Your task to perform on an android device: choose inbox layout in the gmail app Image 0: 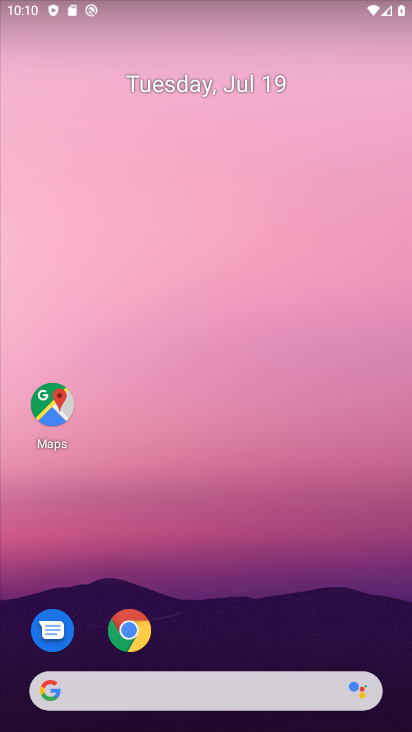
Step 0: press home button
Your task to perform on an android device: choose inbox layout in the gmail app Image 1: 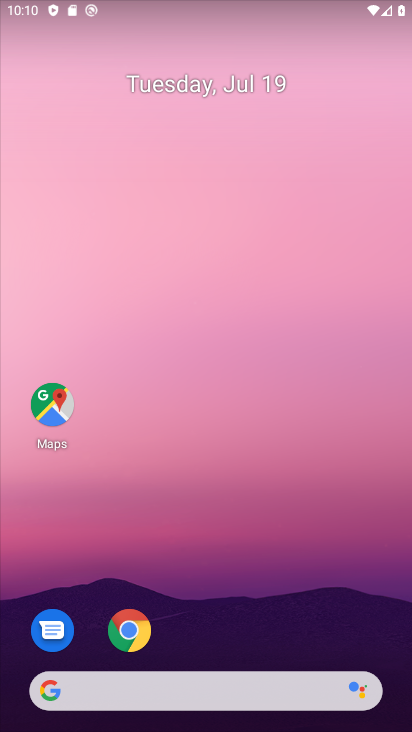
Step 1: drag from (275, 641) to (244, 215)
Your task to perform on an android device: choose inbox layout in the gmail app Image 2: 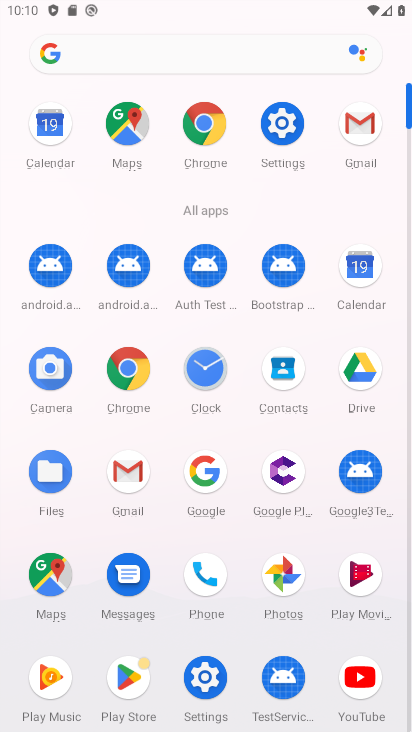
Step 2: click (348, 136)
Your task to perform on an android device: choose inbox layout in the gmail app Image 3: 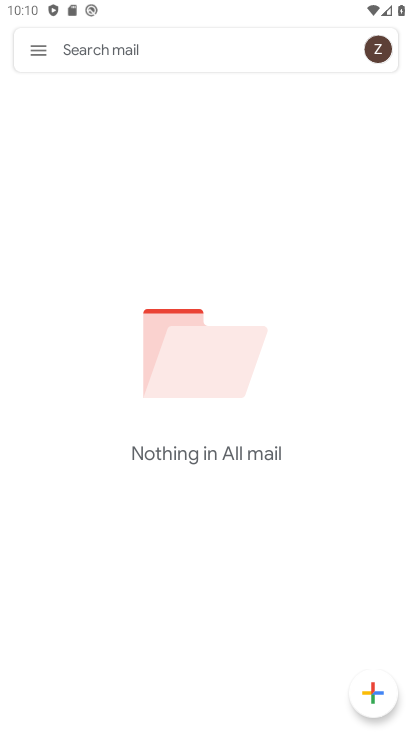
Step 3: click (37, 45)
Your task to perform on an android device: choose inbox layout in the gmail app Image 4: 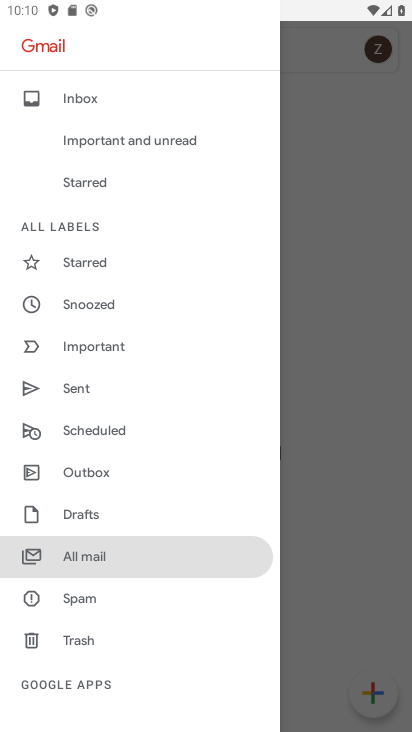
Step 4: drag from (217, 641) to (180, 226)
Your task to perform on an android device: choose inbox layout in the gmail app Image 5: 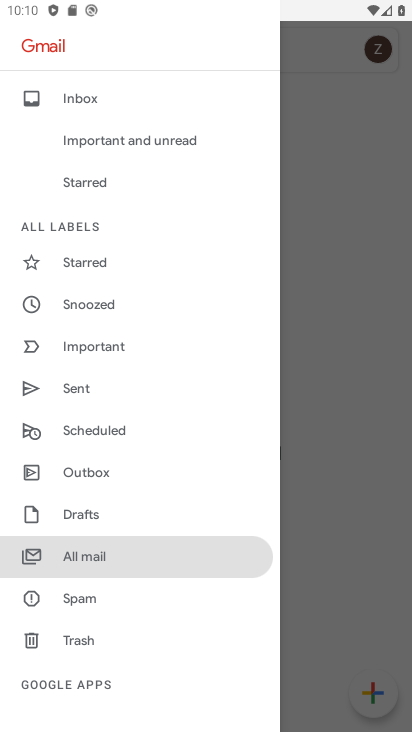
Step 5: drag from (221, 383) to (237, 54)
Your task to perform on an android device: choose inbox layout in the gmail app Image 6: 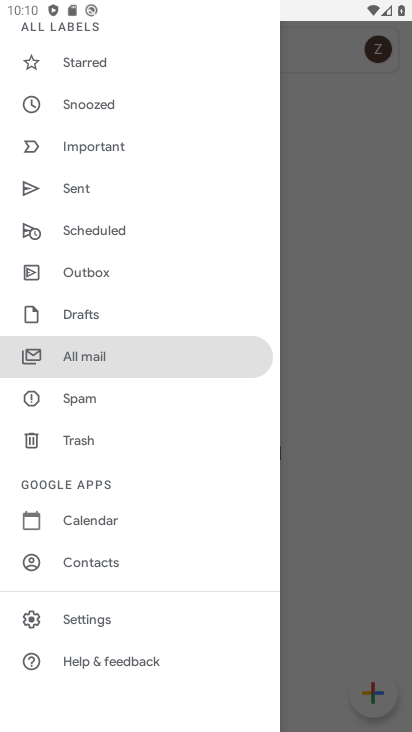
Step 6: click (79, 624)
Your task to perform on an android device: choose inbox layout in the gmail app Image 7: 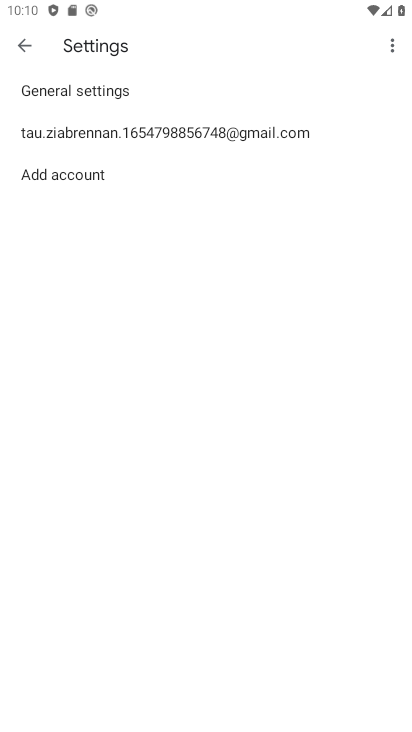
Step 7: click (111, 141)
Your task to perform on an android device: choose inbox layout in the gmail app Image 8: 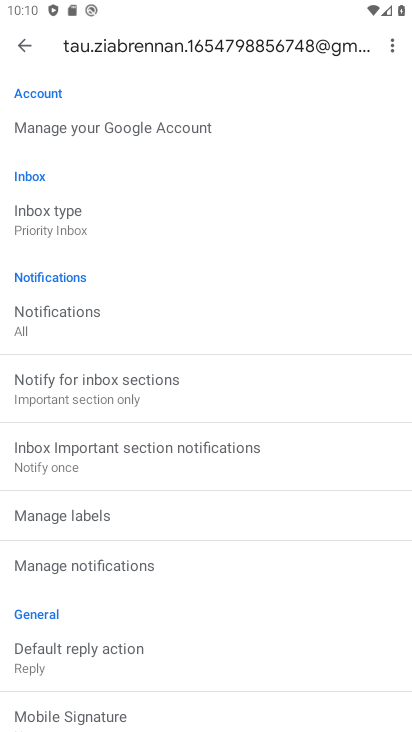
Step 8: click (77, 225)
Your task to perform on an android device: choose inbox layout in the gmail app Image 9: 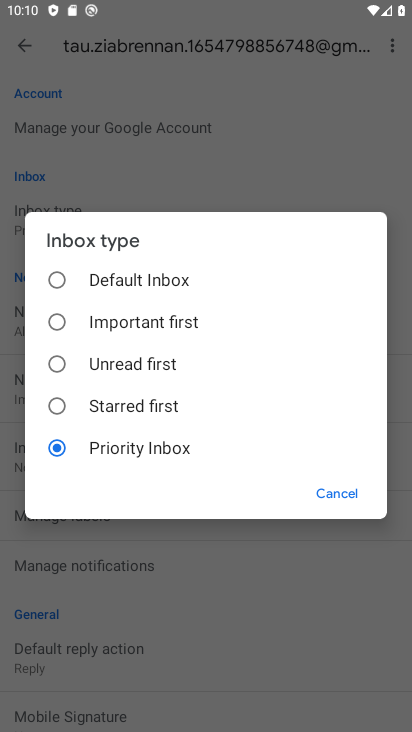
Step 9: click (56, 324)
Your task to perform on an android device: choose inbox layout in the gmail app Image 10: 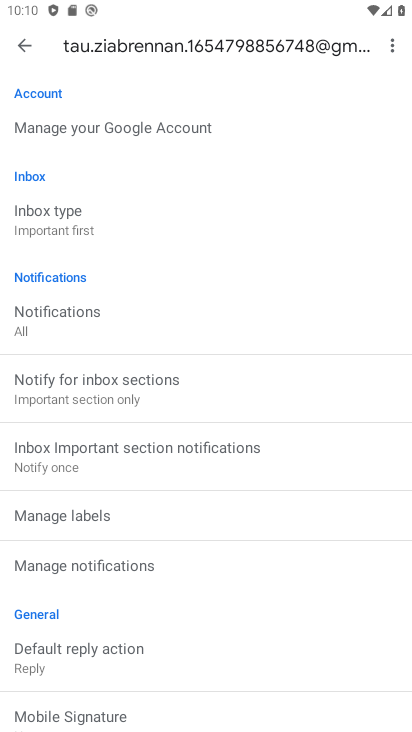
Step 10: task complete